Your task to perform on an android device: Go to display settings Image 0: 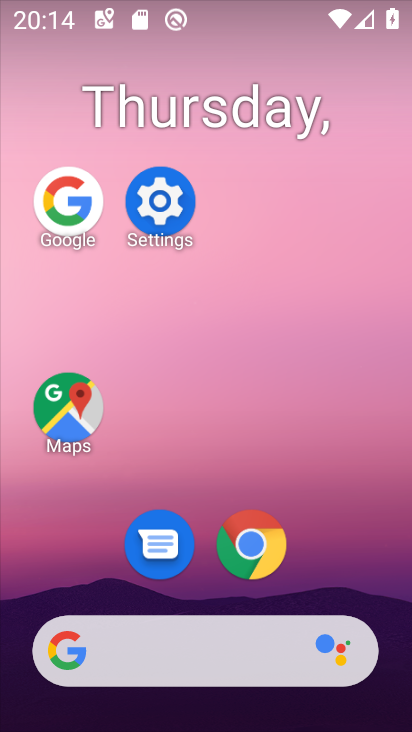
Step 0: drag from (261, 702) to (305, 26)
Your task to perform on an android device: Go to display settings Image 1: 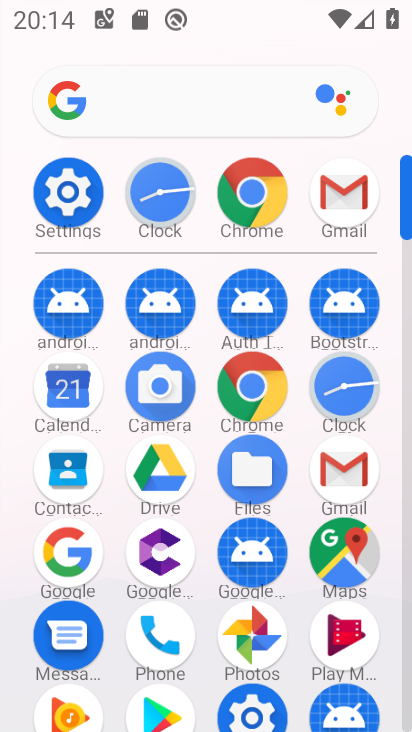
Step 1: click (73, 198)
Your task to perform on an android device: Go to display settings Image 2: 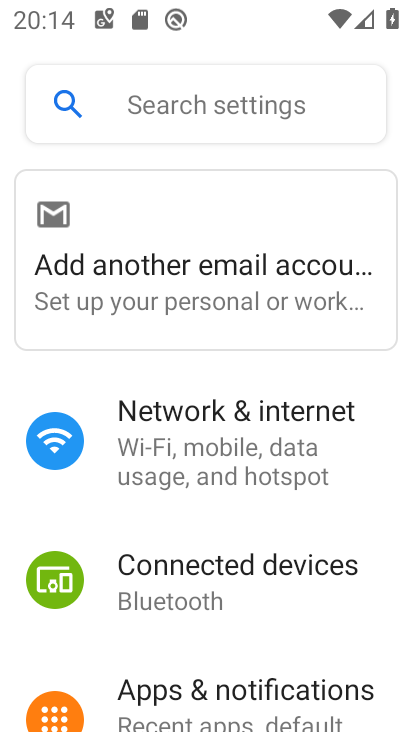
Step 2: click (201, 95)
Your task to perform on an android device: Go to display settings Image 3: 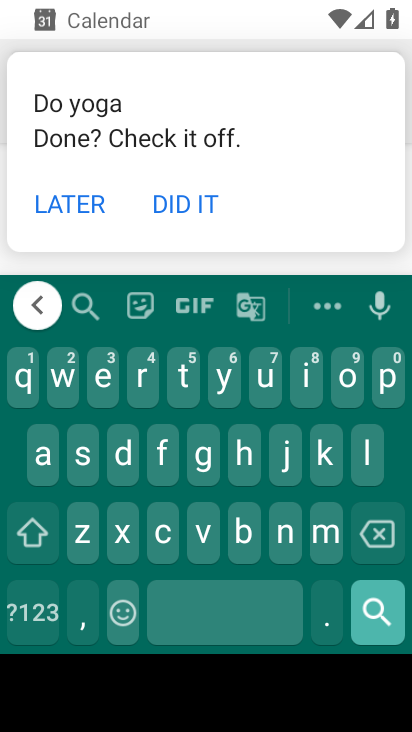
Step 3: click (125, 448)
Your task to perform on an android device: Go to display settings Image 4: 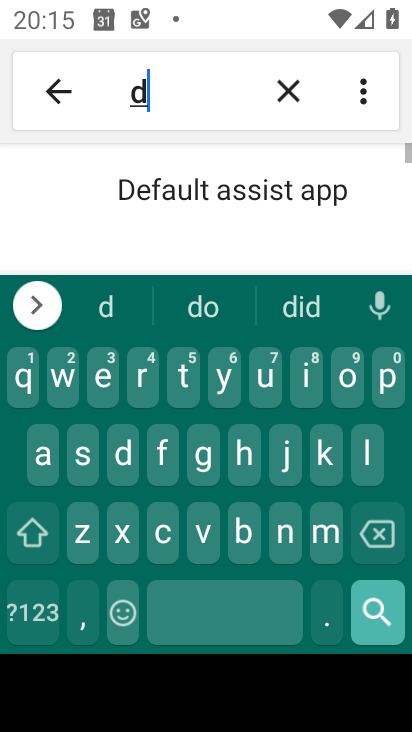
Step 4: click (307, 392)
Your task to perform on an android device: Go to display settings Image 5: 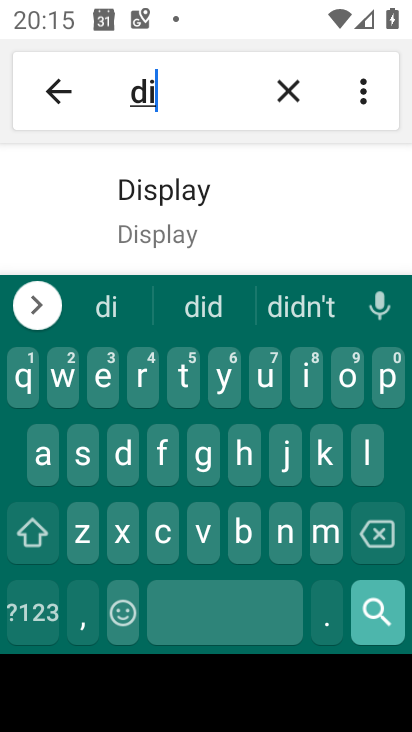
Step 5: click (198, 240)
Your task to perform on an android device: Go to display settings Image 6: 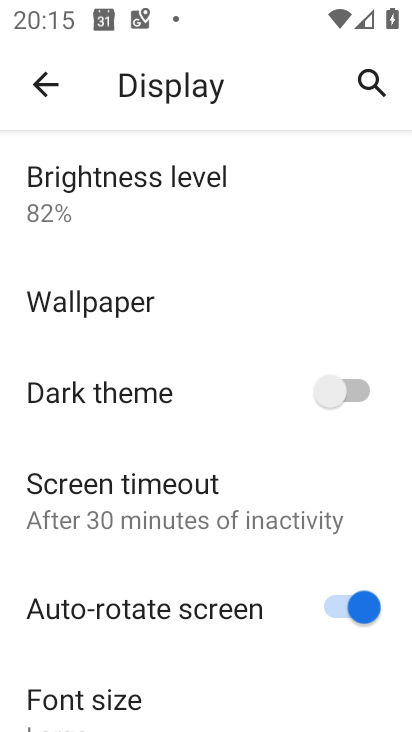
Step 6: task complete